Your task to perform on an android device: What's the weather going to be this weekend? Image 0: 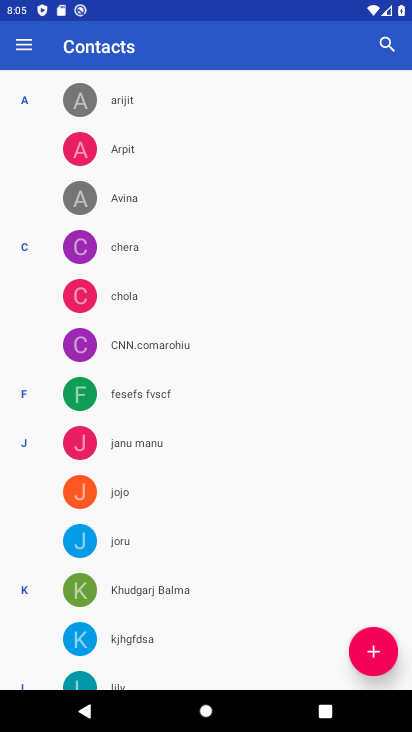
Step 0: press home button
Your task to perform on an android device: What's the weather going to be this weekend? Image 1: 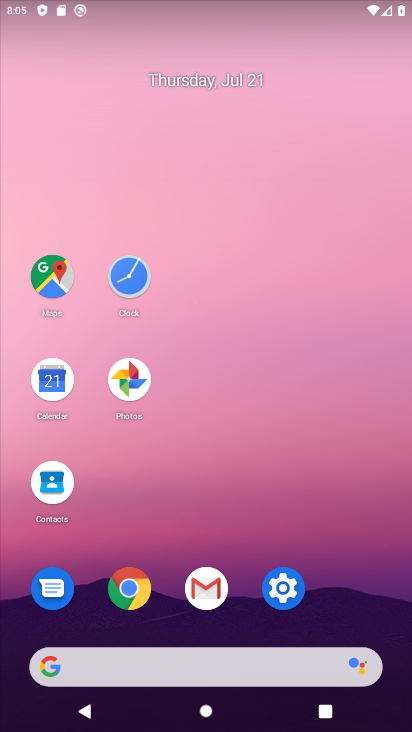
Step 1: click (160, 668)
Your task to perform on an android device: What's the weather going to be this weekend? Image 2: 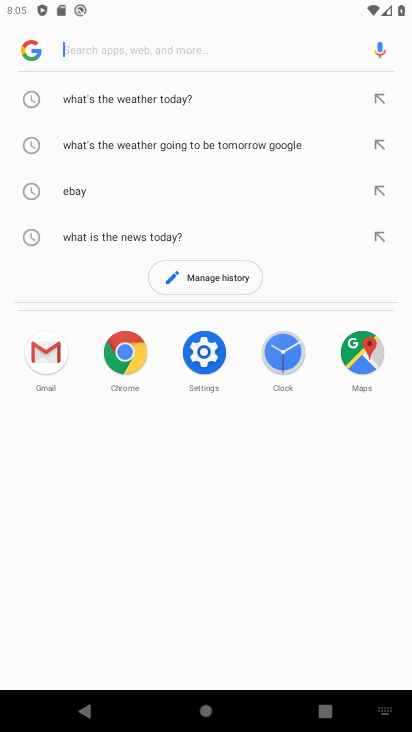
Step 2: click (119, 97)
Your task to perform on an android device: What's the weather going to be this weekend? Image 3: 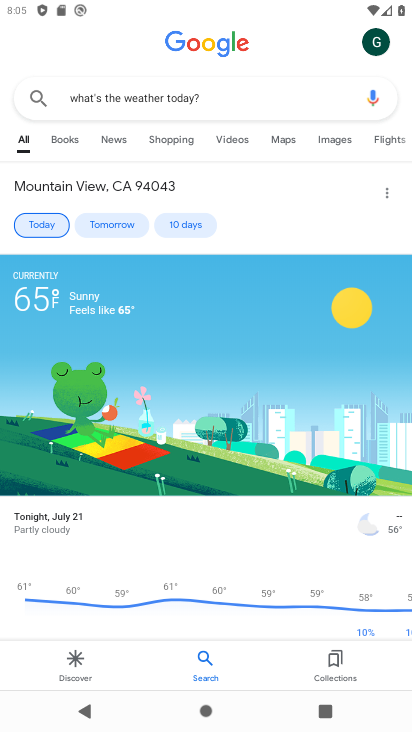
Step 3: click (182, 230)
Your task to perform on an android device: What's the weather going to be this weekend? Image 4: 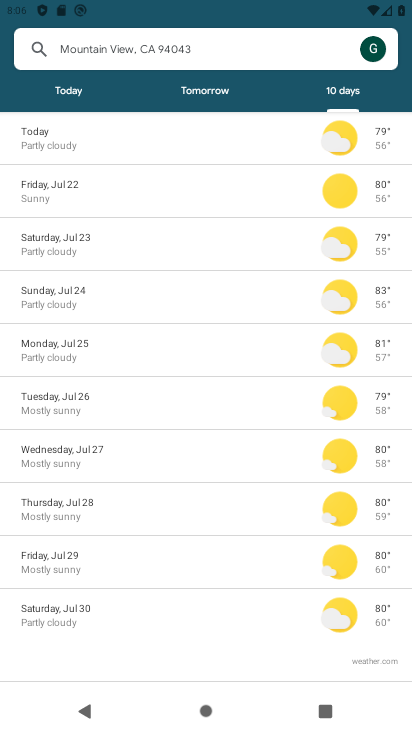
Step 4: task complete